Your task to perform on an android device: Go to internet settings Image 0: 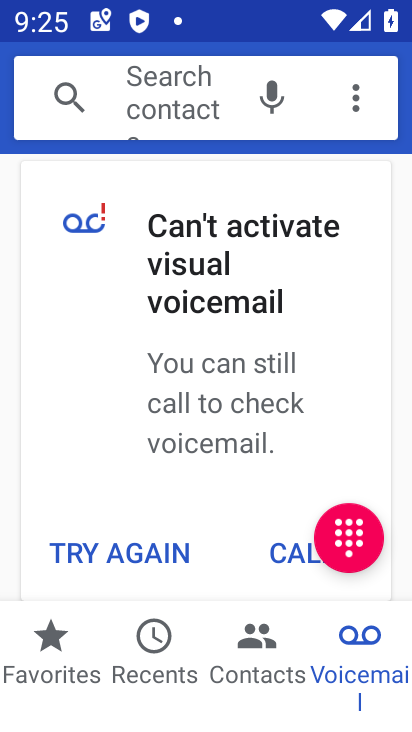
Step 0: press home button
Your task to perform on an android device: Go to internet settings Image 1: 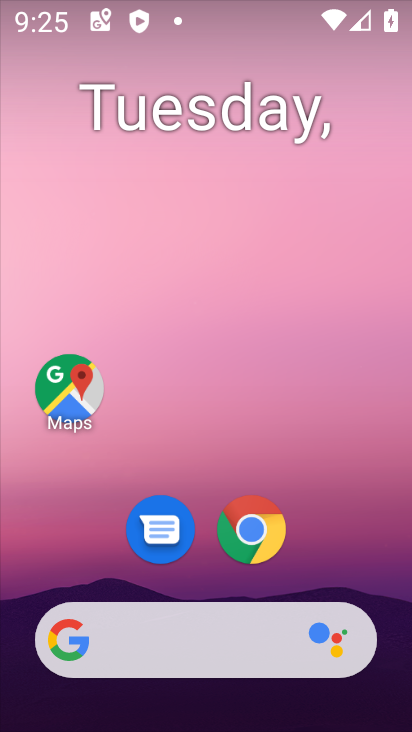
Step 1: drag from (170, 623) to (210, 200)
Your task to perform on an android device: Go to internet settings Image 2: 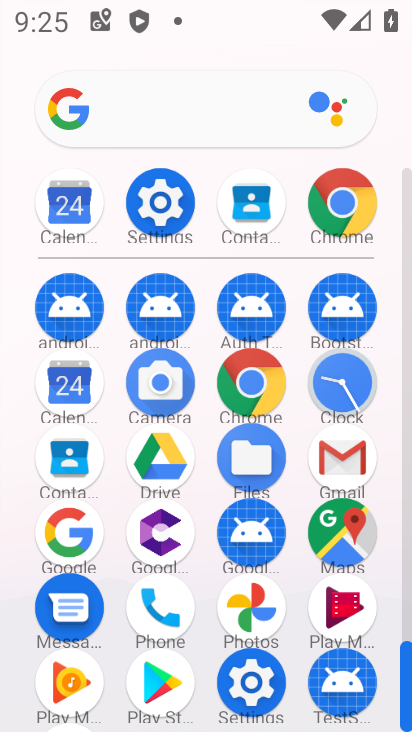
Step 2: click (161, 214)
Your task to perform on an android device: Go to internet settings Image 3: 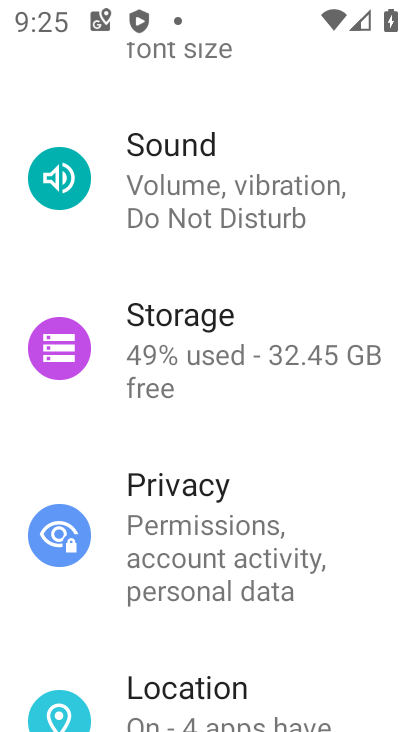
Step 3: drag from (310, 216) to (272, 483)
Your task to perform on an android device: Go to internet settings Image 4: 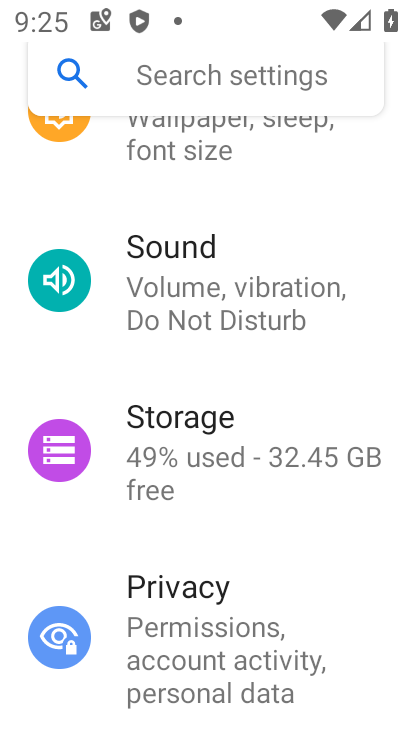
Step 4: drag from (259, 283) to (235, 479)
Your task to perform on an android device: Go to internet settings Image 5: 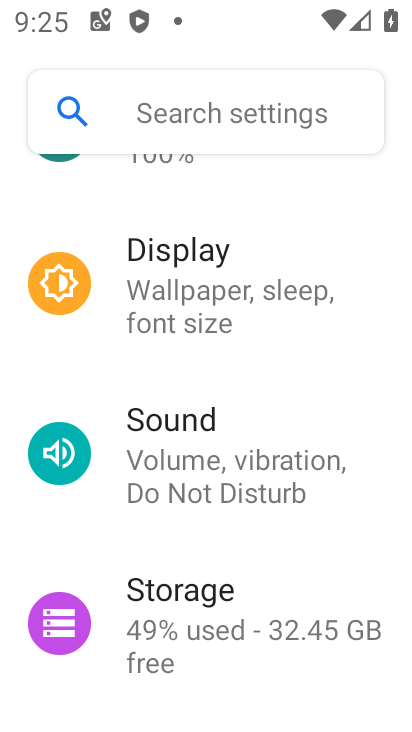
Step 5: drag from (235, 229) to (166, 457)
Your task to perform on an android device: Go to internet settings Image 6: 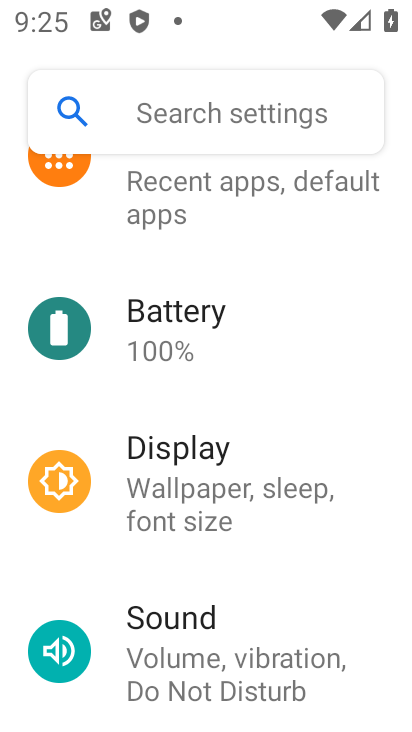
Step 6: drag from (159, 213) to (124, 401)
Your task to perform on an android device: Go to internet settings Image 7: 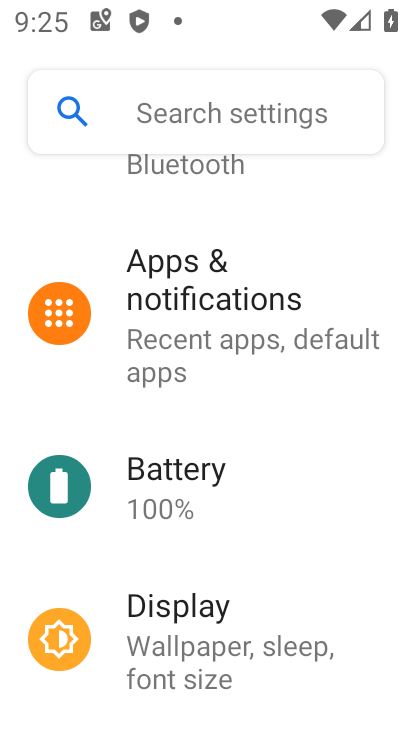
Step 7: drag from (142, 242) to (130, 492)
Your task to perform on an android device: Go to internet settings Image 8: 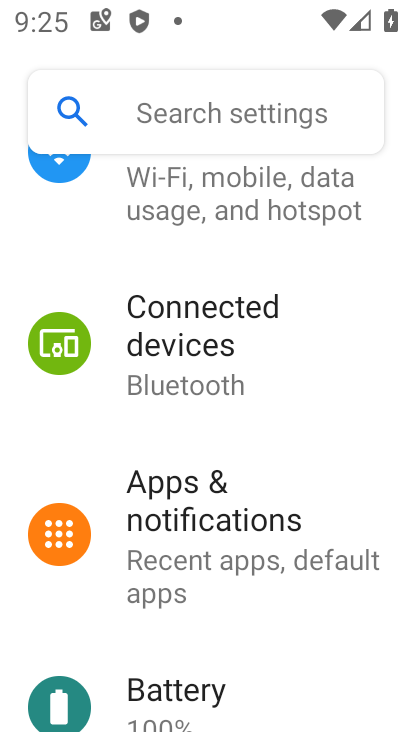
Step 8: drag from (172, 225) to (167, 436)
Your task to perform on an android device: Go to internet settings Image 9: 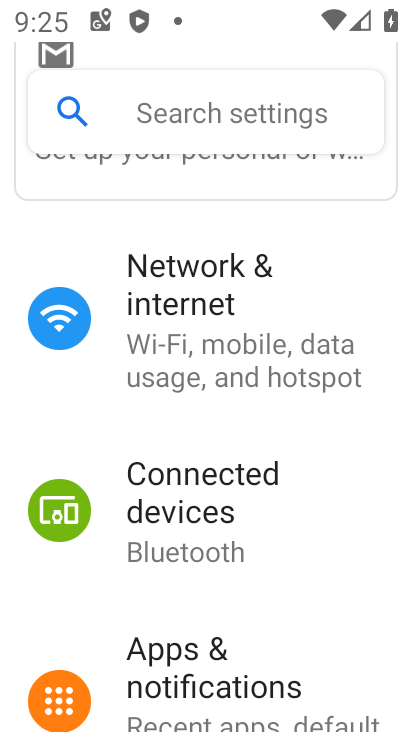
Step 9: drag from (193, 221) to (179, 331)
Your task to perform on an android device: Go to internet settings Image 10: 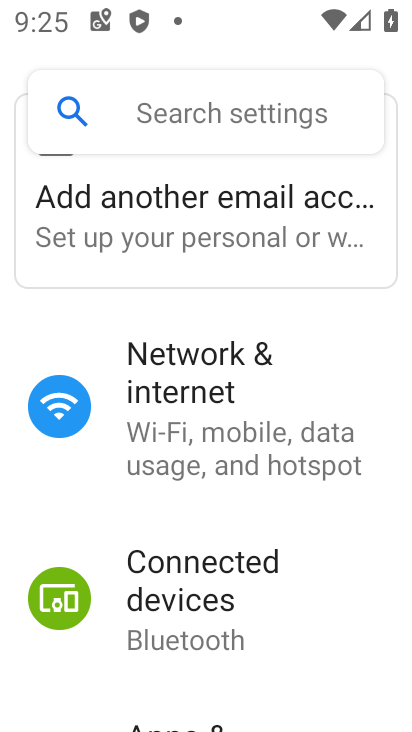
Step 10: click (225, 389)
Your task to perform on an android device: Go to internet settings Image 11: 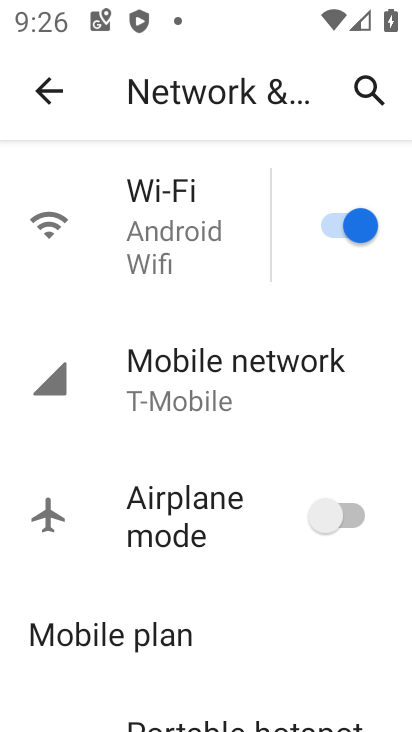
Step 11: click (225, 389)
Your task to perform on an android device: Go to internet settings Image 12: 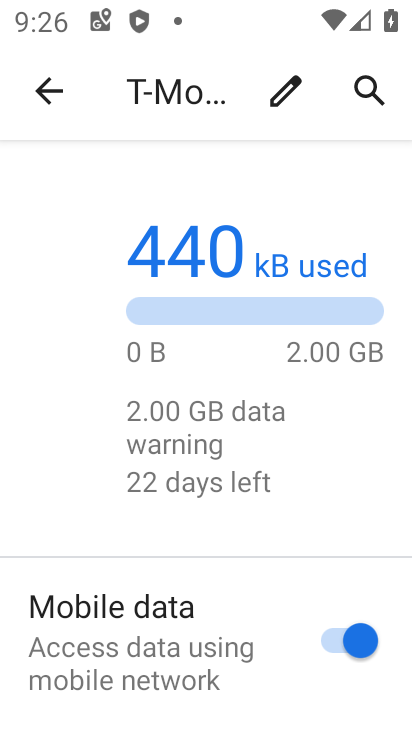
Step 12: task complete